Your task to perform on an android device: toggle location history Image 0: 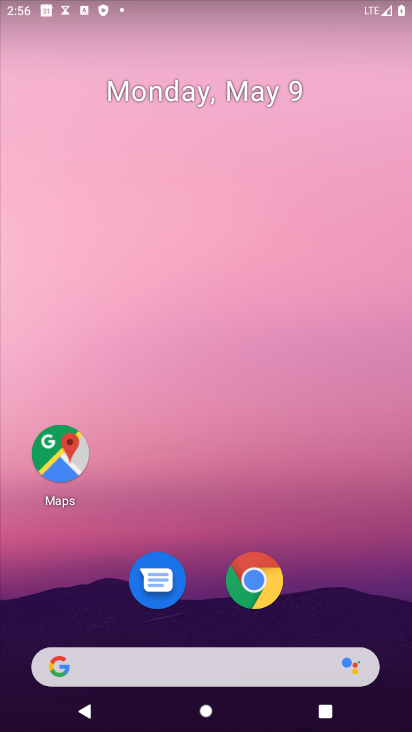
Step 0: drag from (327, 551) to (225, 177)
Your task to perform on an android device: toggle location history Image 1: 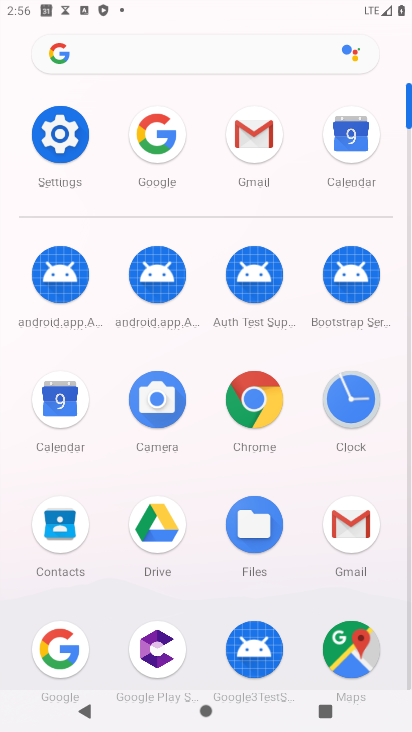
Step 1: click (76, 140)
Your task to perform on an android device: toggle location history Image 2: 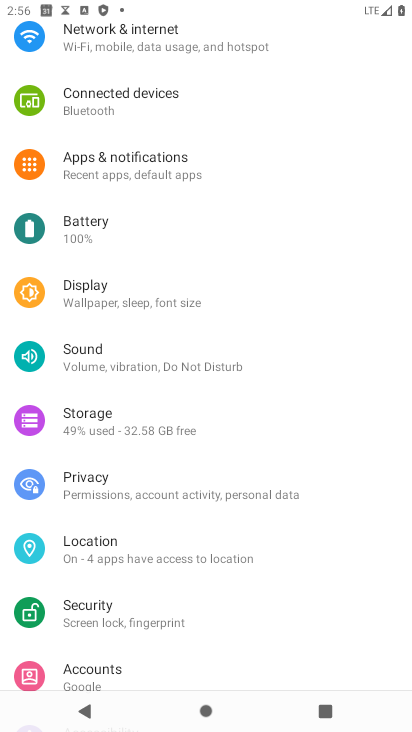
Step 2: click (147, 493)
Your task to perform on an android device: toggle location history Image 3: 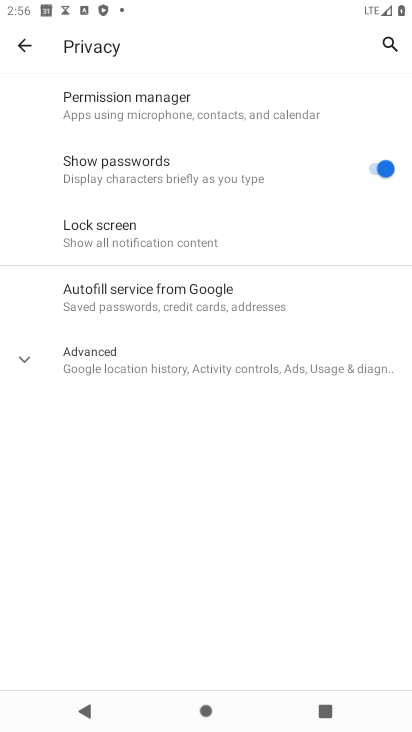
Step 3: click (28, 48)
Your task to perform on an android device: toggle location history Image 4: 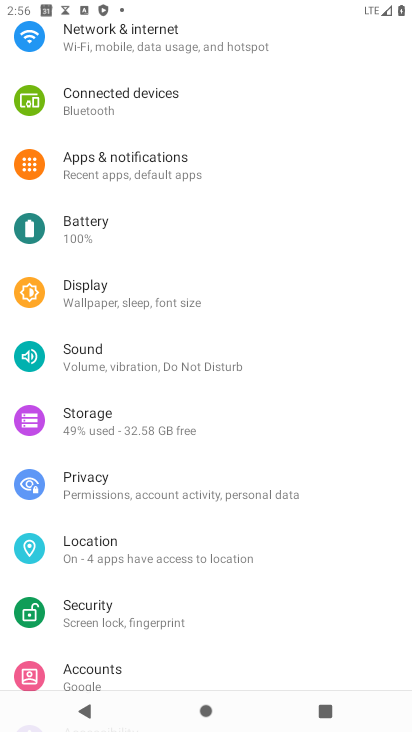
Step 4: click (145, 532)
Your task to perform on an android device: toggle location history Image 5: 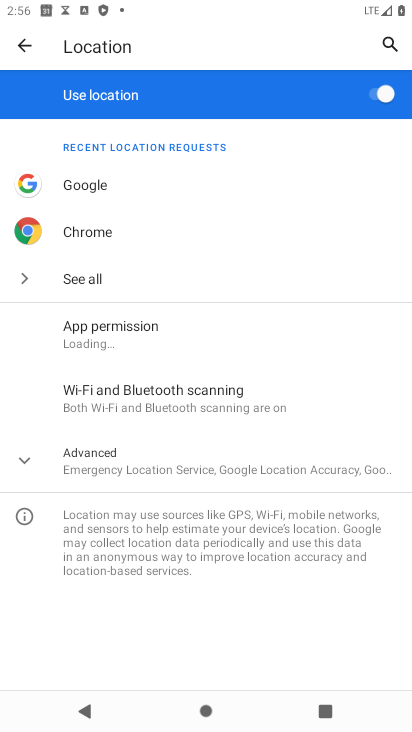
Step 5: click (186, 461)
Your task to perform on an android device: toggle location history Image 6: 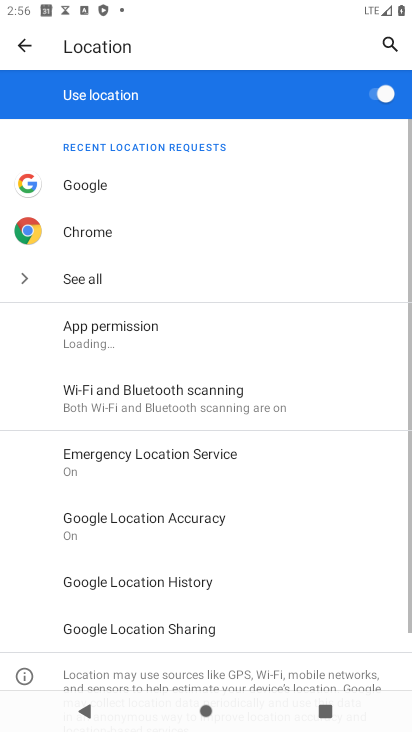
Step 6: drag from (201, 507) to (201, 445)
Your task to perform on an android device: toggle location history Image 7: 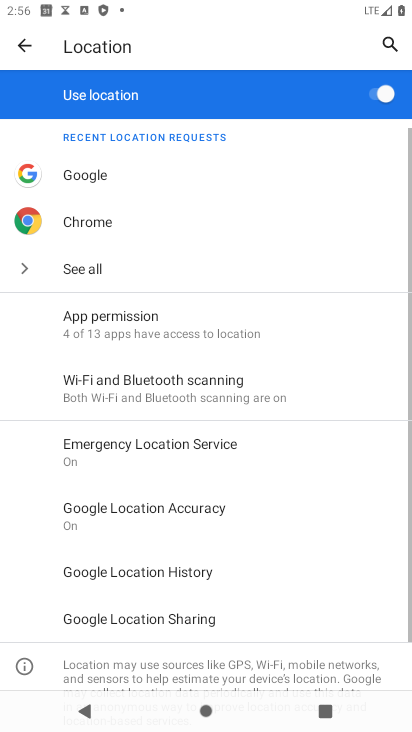
Step 7: click (198, 560)
Your task to perform on an android device: toggle location history Image 8: 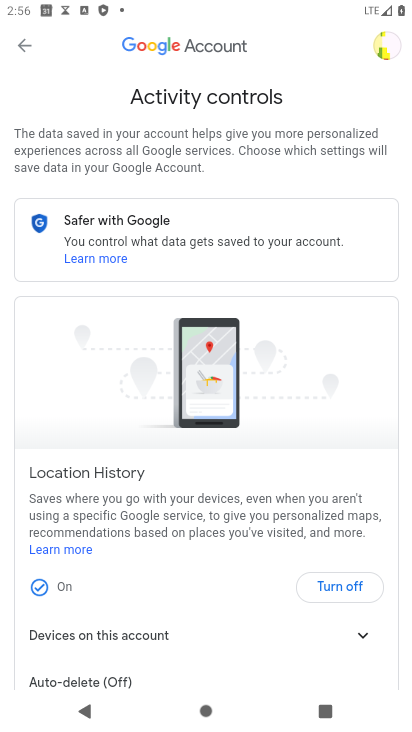
Step 8: click (335, 582)
Your task to perform on an android device: toggle location history Image 9: 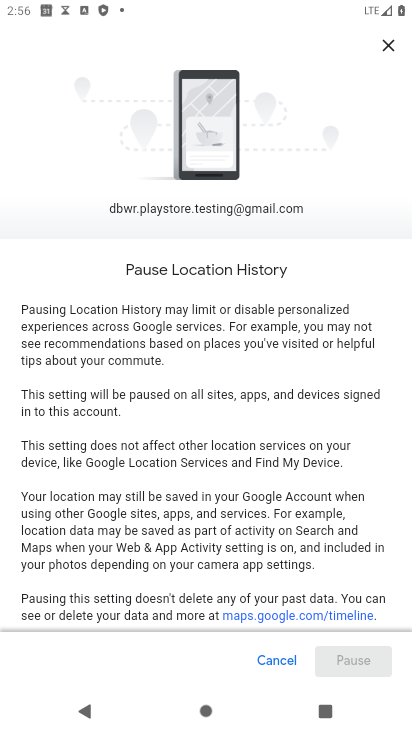
Step 9: drag from (335, 563) to (291, 177)
Your task to perform on an android device: toggle location history Image 10: 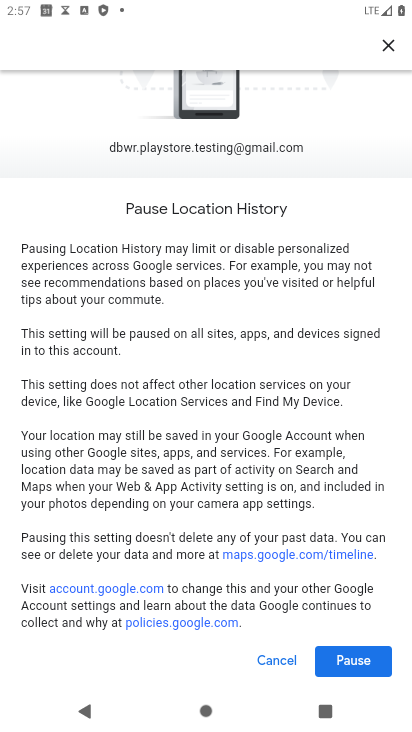
Step 10: click (355, 657)
Your task to perform on an android device: toggle location history Image 11: 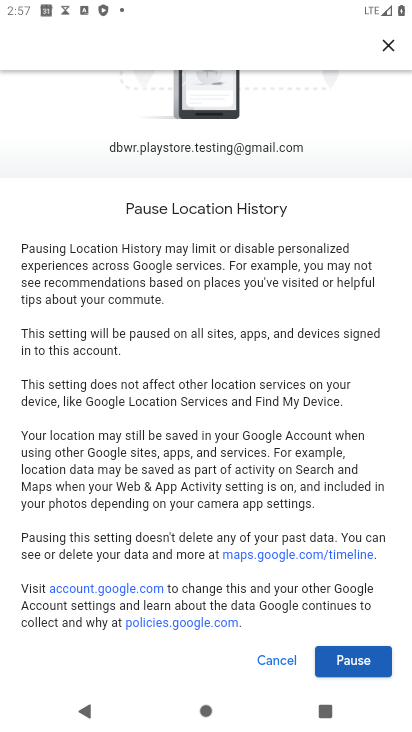
Step 11: click (364, 669)
Your task to perform on an android device: toggle location history Image 12: 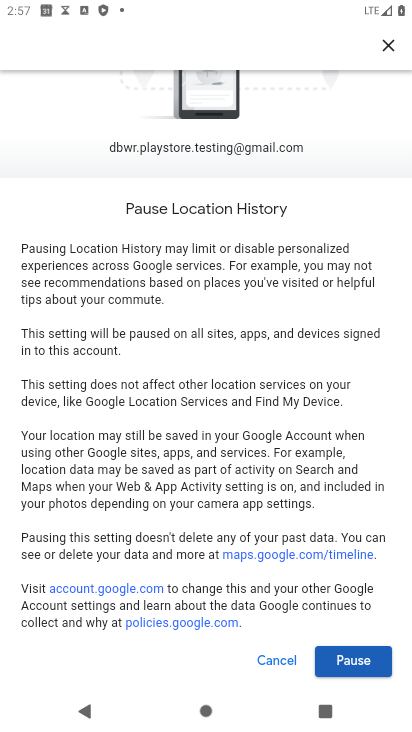
Step 12: click (365, 651)
Your task to perform on an android device: toggle location history Image 13: 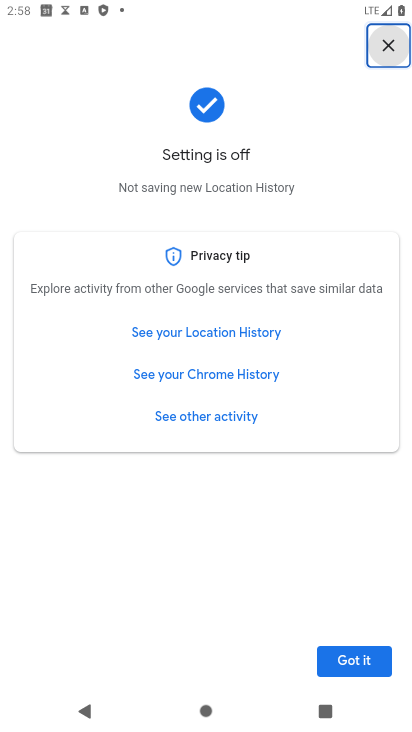
Step 13: click (378, 672)
Your task to perform on an android device: toggle location history Image 14: 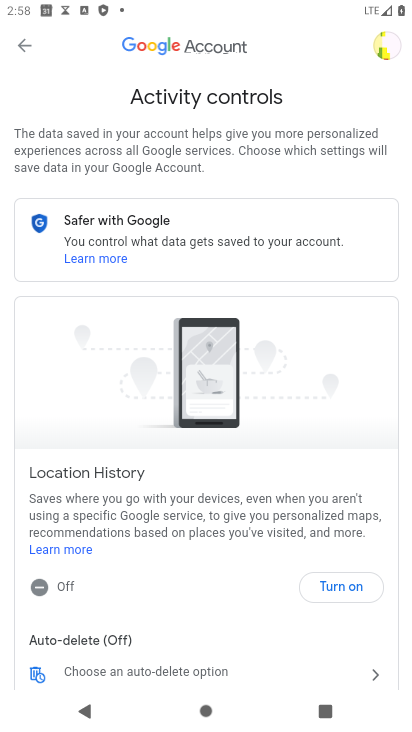
Step 14: task complete